Your task to perform on an android device: refresh tabs in the chrome app Image 0: 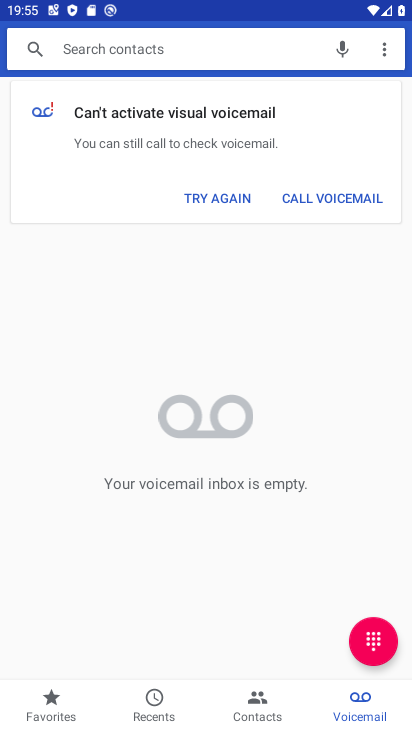
Step 0: press home button
Your task to perform on an android device: refresh tabs in the chrome app Image 1: 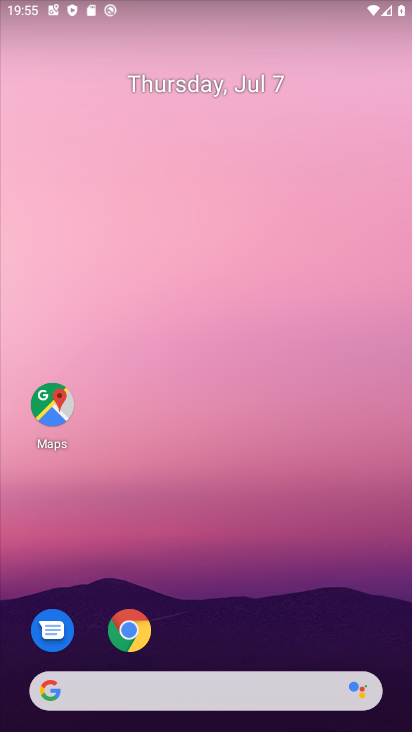
Step 1: click (127, 629)
Your task to perform on an android device: refresh tabs in the chrome app Image 2: 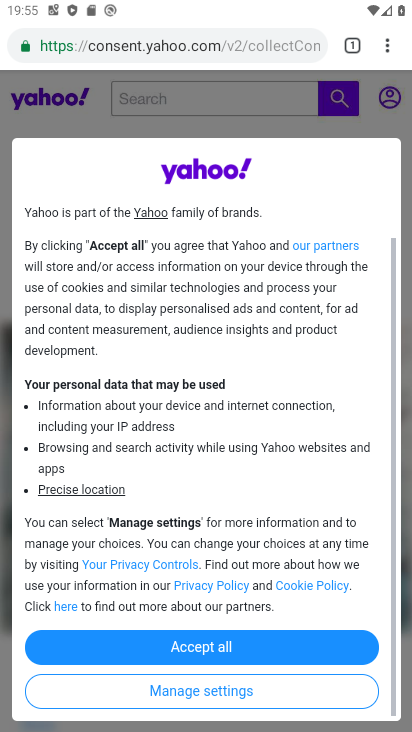
Step 2: click (385, 45)
Your task to perform on an android device: refresh tabs in the chrome app Image 3: 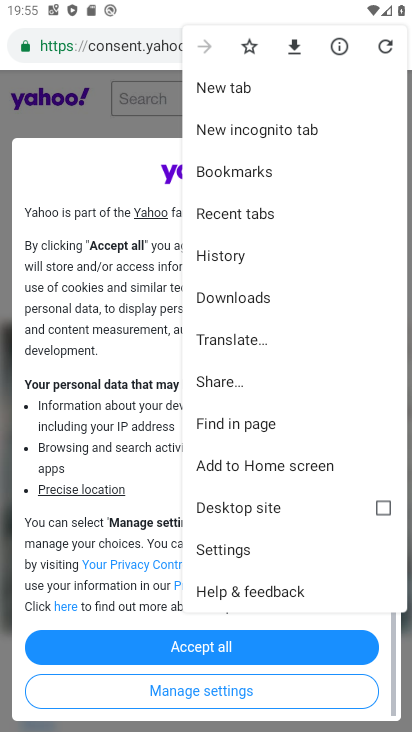
Step 3: click (378, 46)
Your task to perform on an android device: refresh tabs in the chrome app Image 4: 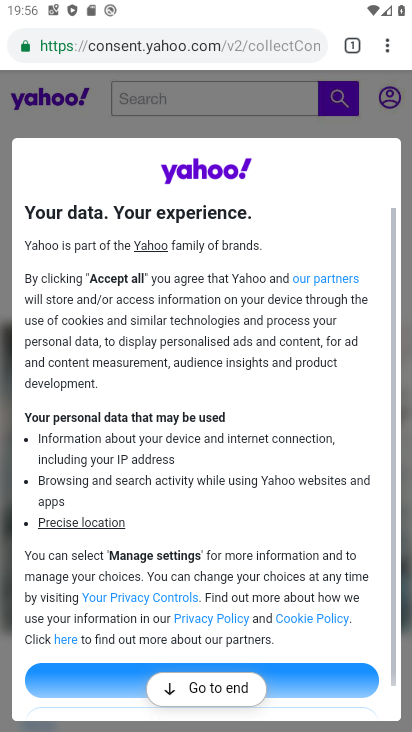
Step 4: task complete